Your task to perform on an android device: search for starred emails in the gmail app Image 0: 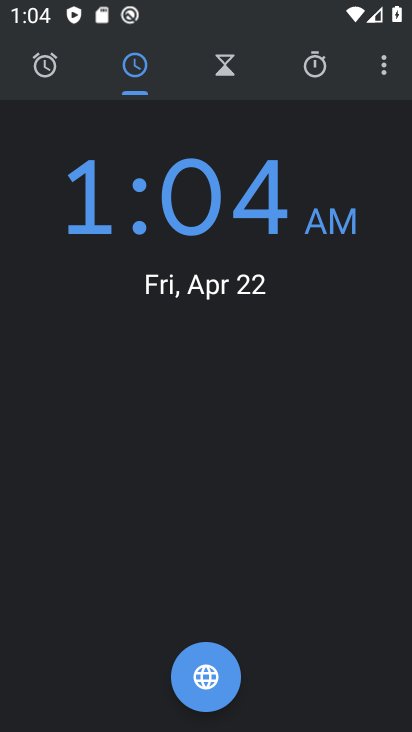
Step 0: press home button
Your task to perform on an android device: search for starred emails in the gmail app Image 1: 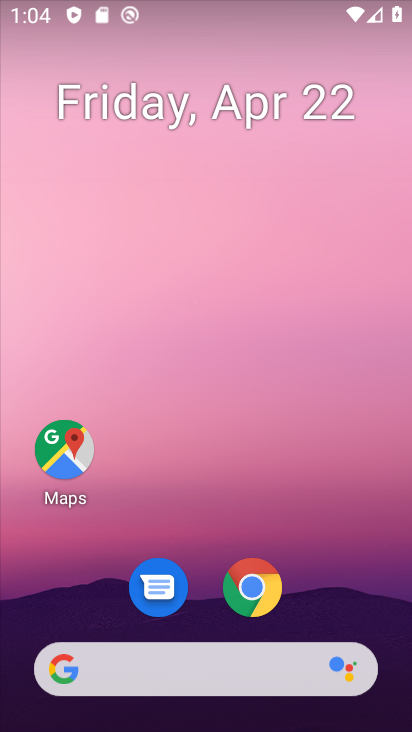
Step 1: drag from (212, 599) to (160, 133)
Your task to perform on an android device: search for starred emails in the gmail app Image 2: 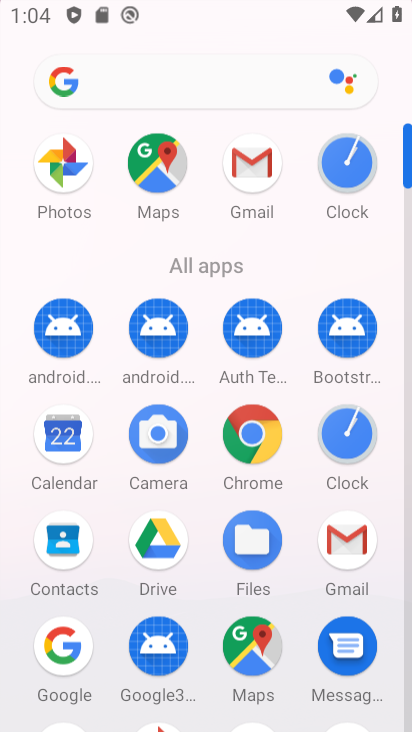
Step 2: drag from (247, 458) to (220, 283)
Your task to perform on an android device: search for starred emails in the gmail app Image 3: 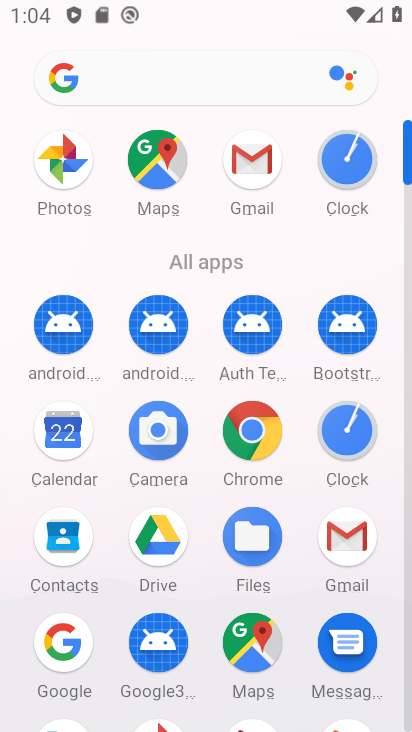
Step 3: click (350, 551)
Your task to perform on an android device: search for starred emails in the gmail app Image 4: 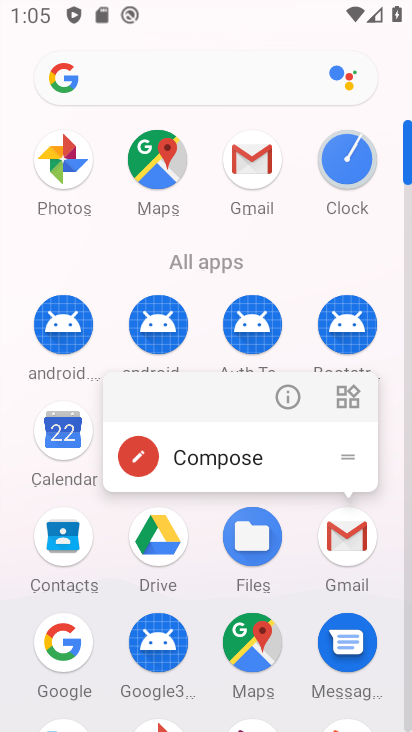
Step 4: click (343, 547)
Your task to perform on an android device: search for starred emails in the gmail app Image 5: 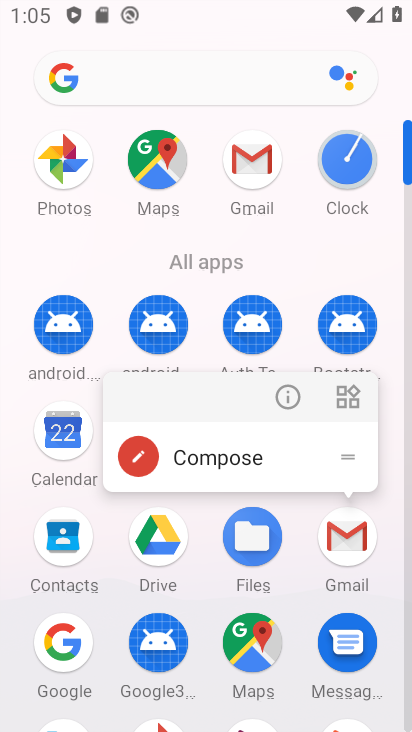
Step 5: click (343, 547)
Your task to perform on an android device: search for starred emails in the gmail app Image 6: 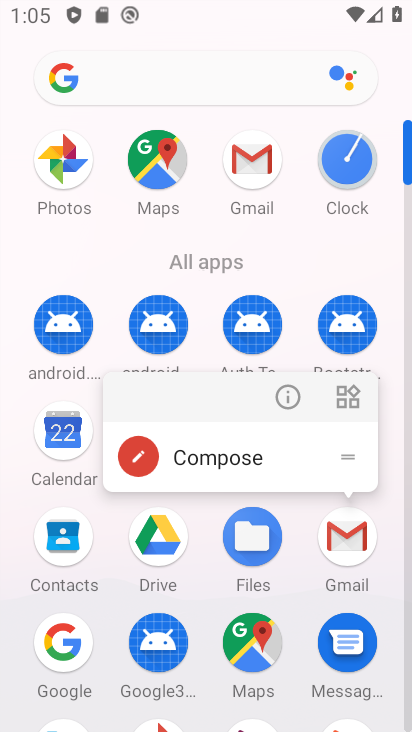
Step 6: click (355, 543)
Your task to perform on an android device: search for starred emails in the gmail app Image 7: 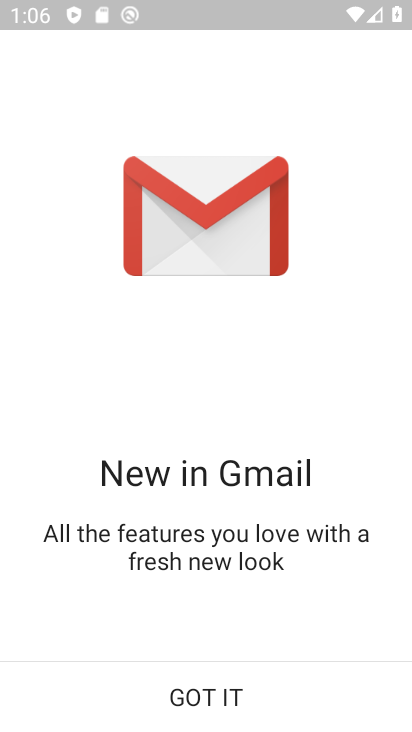
Step 7: click (240, 699)
Your task to perform on an android device: search for starred emails in the gmail app Image 8: 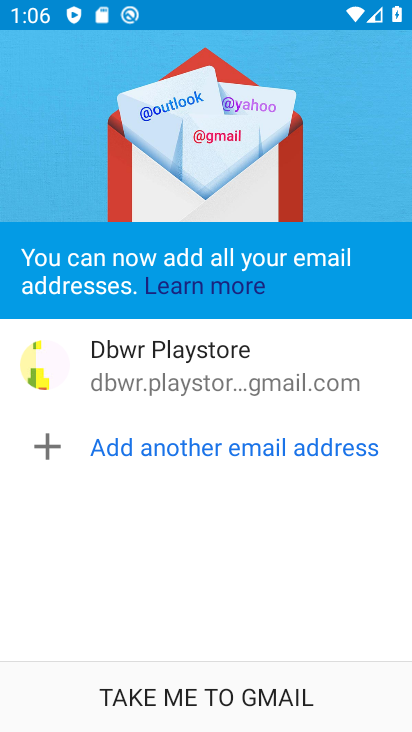
Step 8: click (233, 696)
Your task to perform on an android device: search for starred emails in the gmail app Image 9: 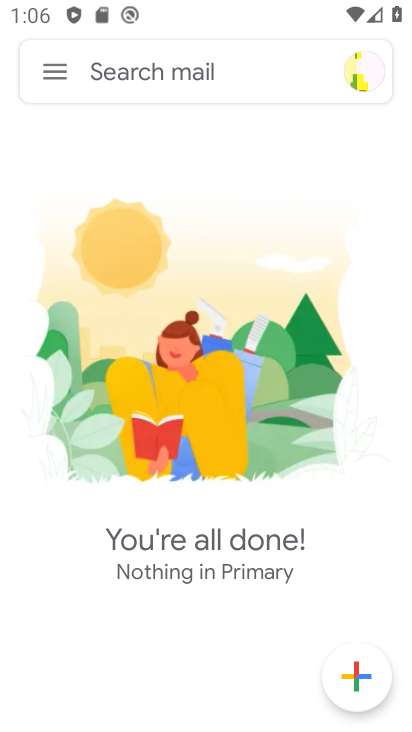
Step 9: click (46, 77)
Your task to perform on an android device: search for starred emails in the gmail app Image 10: 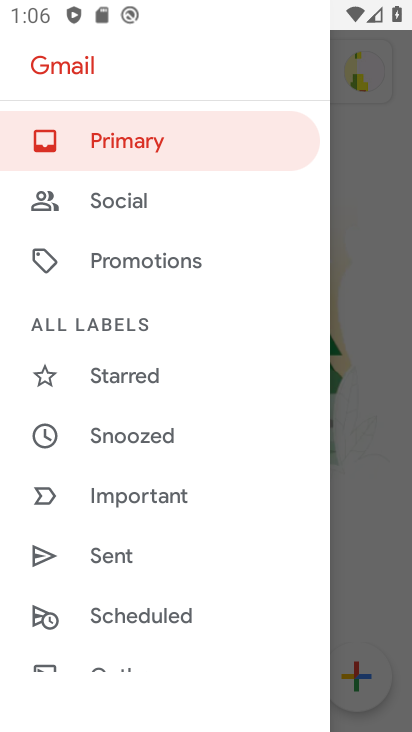
Step 10: drag from (117, 618) to (88, 377)
Your task to perform on an android device: search for starred emails in the gmail app Image 11: 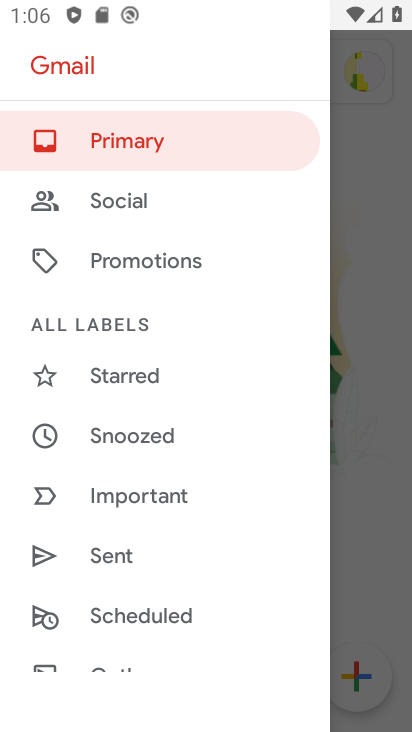
Step 11: drag from (173, 530) to (154, 365)
Your task to perform on an android device: search for starred emails in the gmail app Image 12: 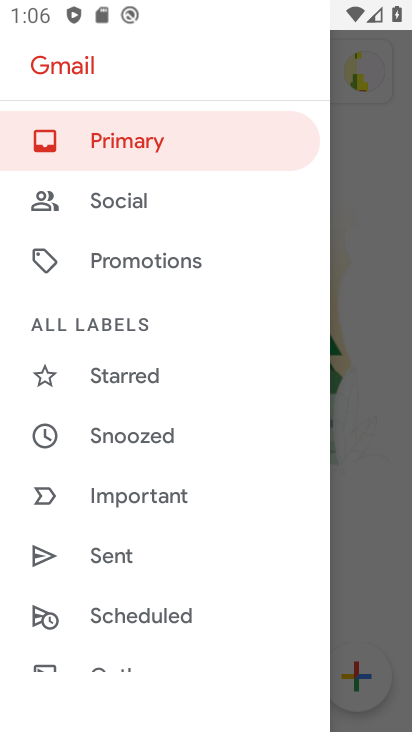
Step 12: click (139, 369)
Your task to perform on an android device: search for starred emails in the gmail app Image 13: 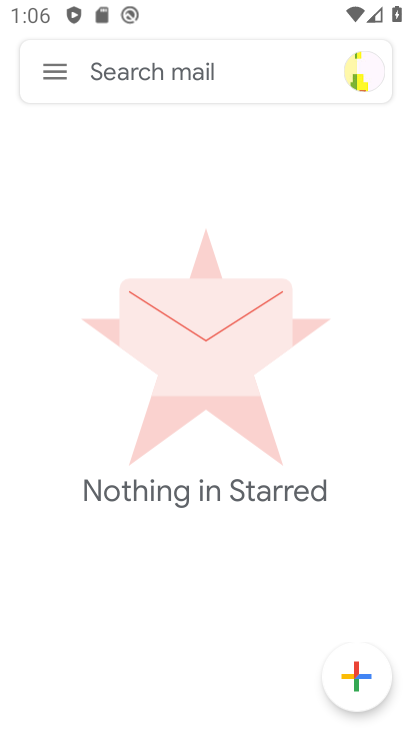
Step 13: task complete